Your task to perform on an android device: move an email to a new category in the gmail app Image 0: 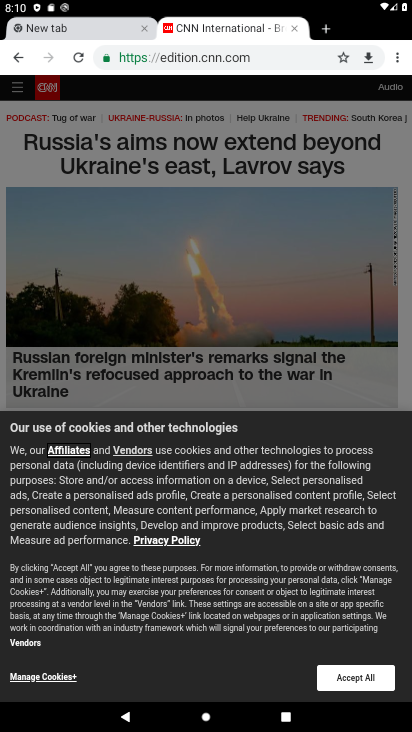
Step 0: press home button
Your task to perform on an android device: move an email to a new category in the gmail app Image 1: 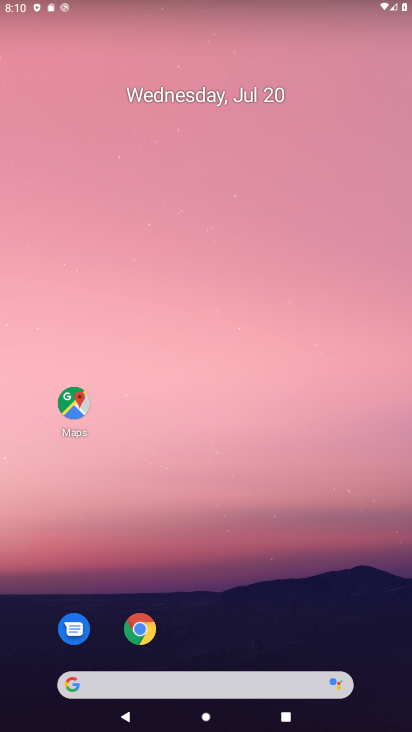
Step 1: drag from (204, 633) to (262, 90)
Your task to perform on an android device: move an email to a new category in the gmail app Image 2: 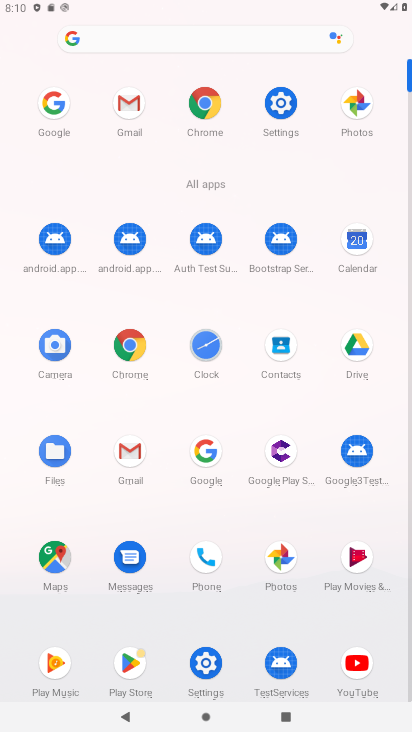
Step 2: click (128, 458)
Your task to perform on an android device: move an email to a new category in the gmail app Image 3: 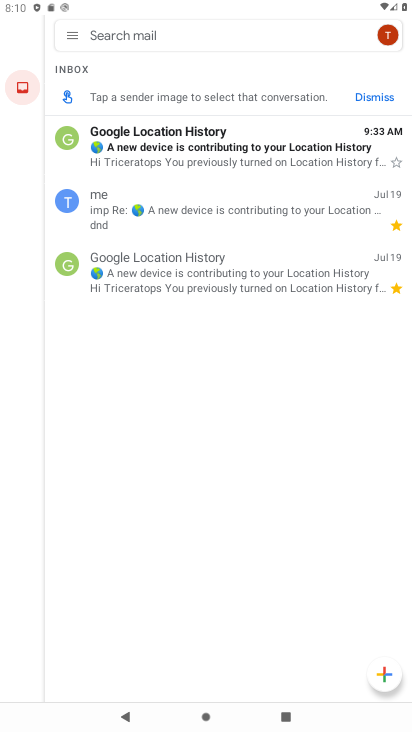
Step 3: click (176, 143)
Your task to perform on an android device: move an email to a new category in the gmail app Image 4: 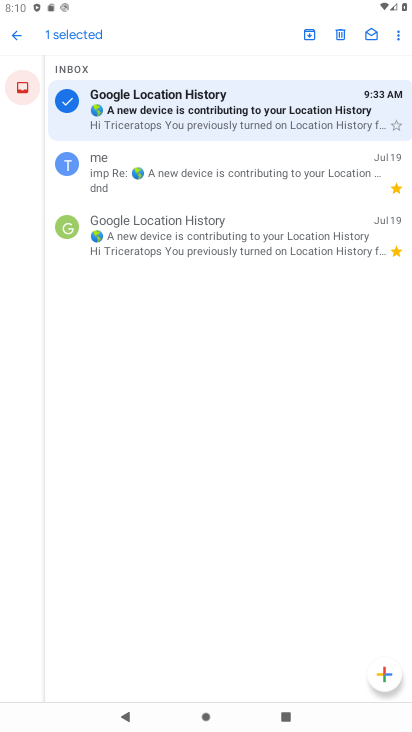
Step 4: click (391, 33)
Your task to perform on an android device: move an email to a new category in the gmail app Image 5: 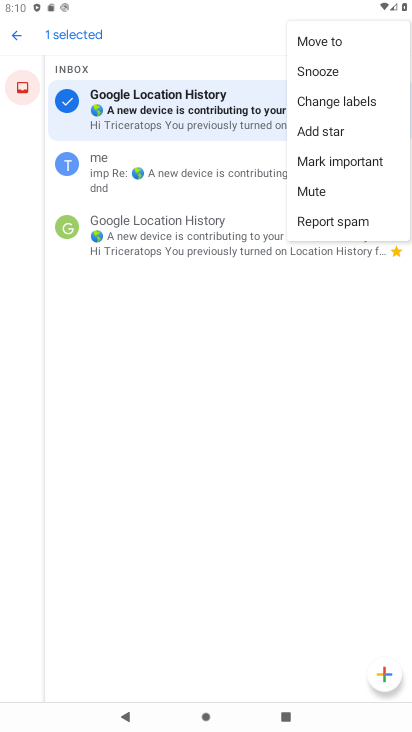
Step 5: click (335, 41)
Your task to perform on an android device: move an email to a new category in the gmail app Image 6: 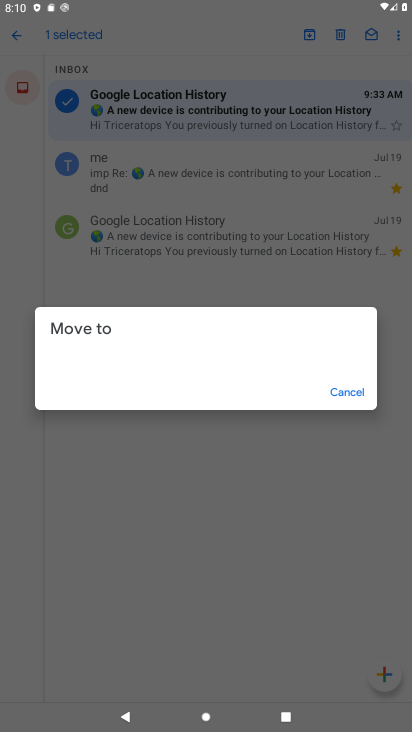
Step 6: click (78, 367)
Your task to perform on an android device: move an email to a new category in the gmail app Image 7: 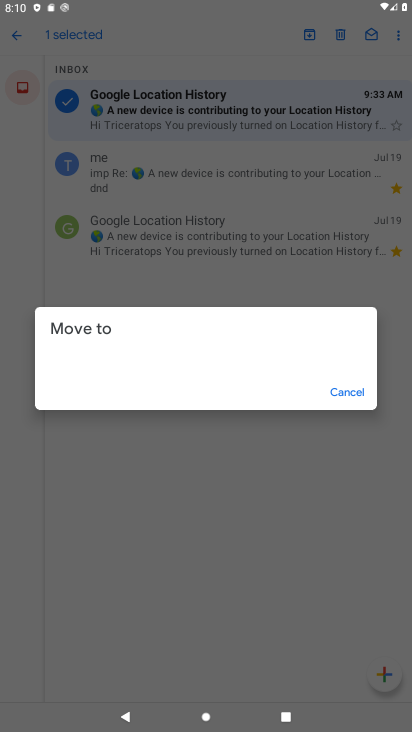
Step 7: click (342, 389)
Your task to perform on an android device: move an email to a new category in the gmail app Image 8: 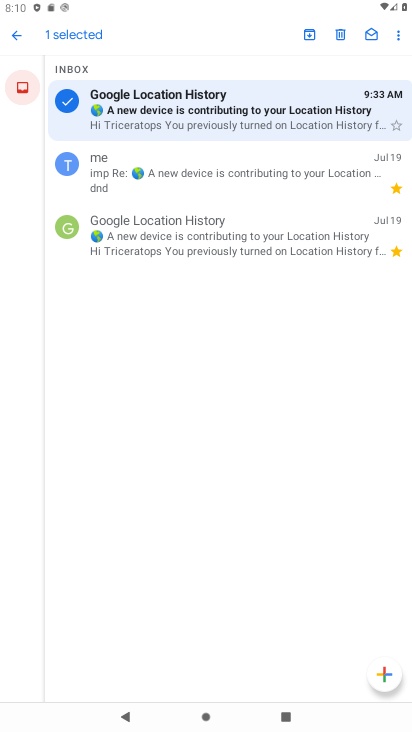
Step 8: task complete